Your task to perform on an android device: toggle wifi Image 0: 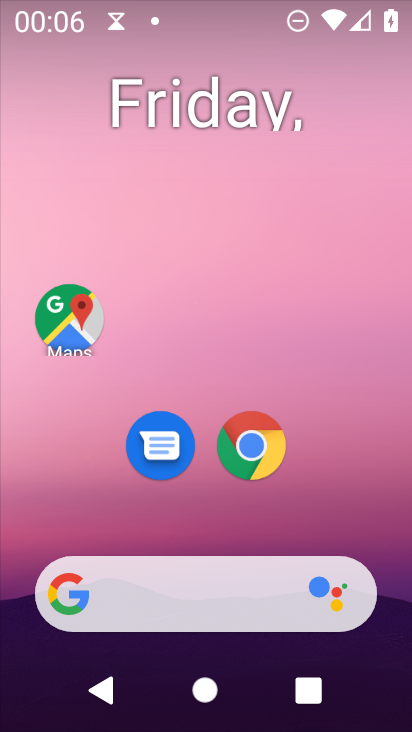
Step 0: click (208, 3)
Your task to perform on an android device: toggle wifi Image 1: 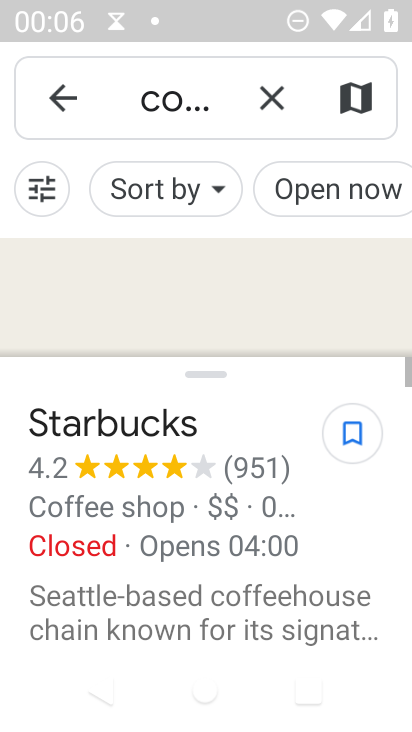
Step 1: press home button
Your task to perform on an android device: toggle wifi Image 2: 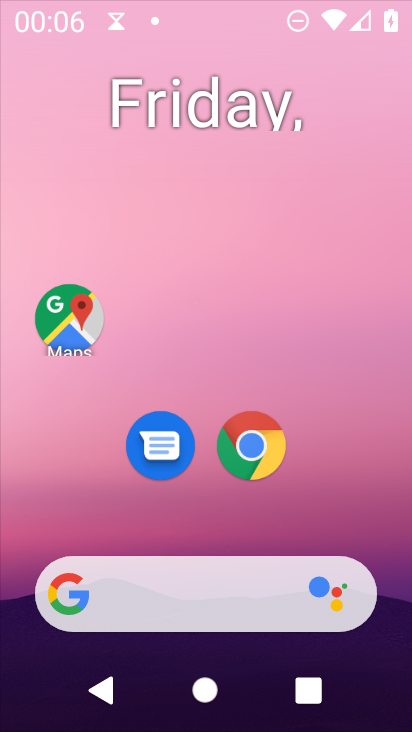
Step 2: drag from (245, 728) to (242, 81)
Your task to perform on an android device: toggle wifi Image 3: 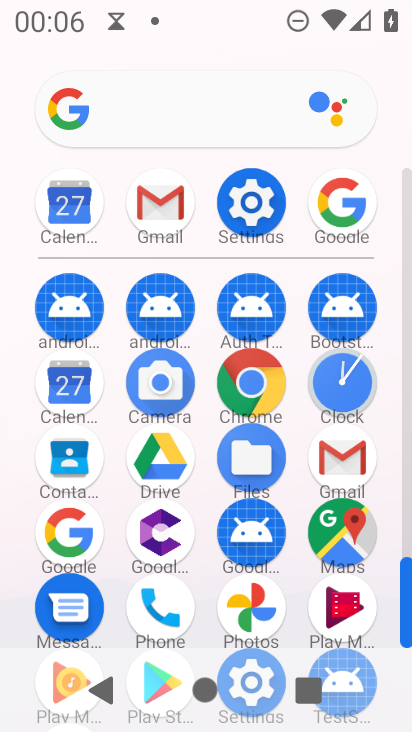
Step 3: click (249, 207)
Your task to perform on an android device: toggle wifi Image 4: 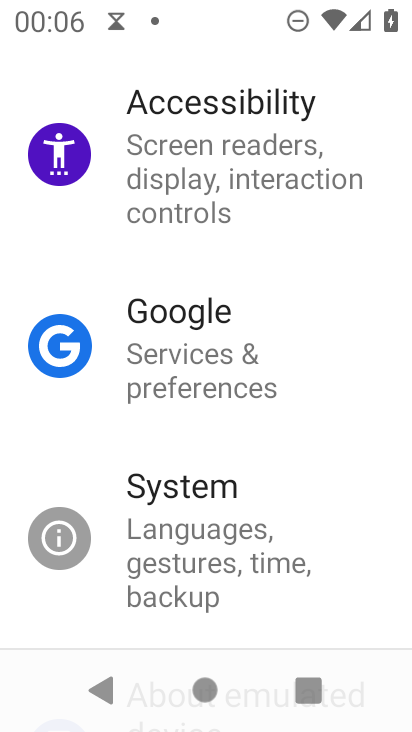
Step 4: drag from (343, 77) to (334, 510)
Your task to perform on an android device: toggle wifi Image 5: 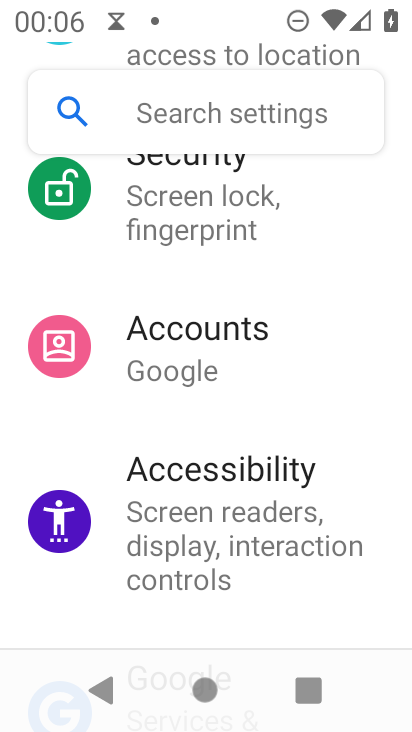
Step 5: drag from (315, 163) to (309, 604)
Your task to perform on an android device: toggle wifi Image 6: 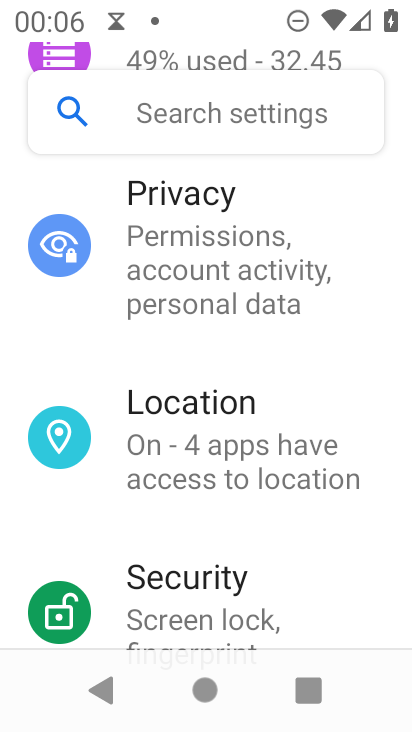
Step 6: drag from (301, 182) to (284, 632)
Your task to perform on an android device: toggle wifi Image 7: 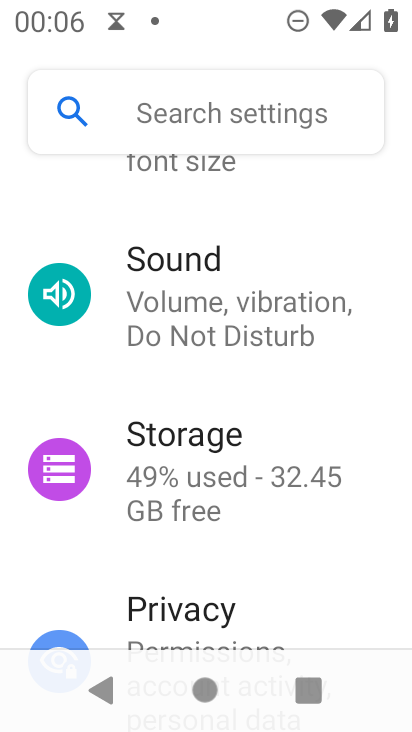
Step 7: drag from (296, 207) to (296, 537)
Your task to perform on an android device: toggle wifi Image 8: 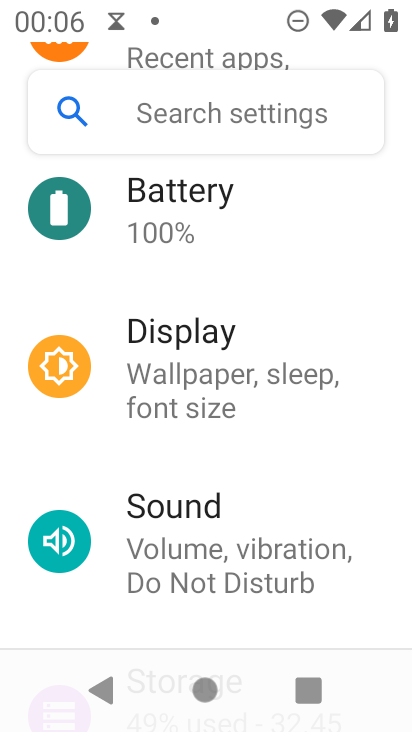
Step 8: drag from (280, 177) to (278, 525)
Your task to perform on an android device: toggle wifi Image 9: 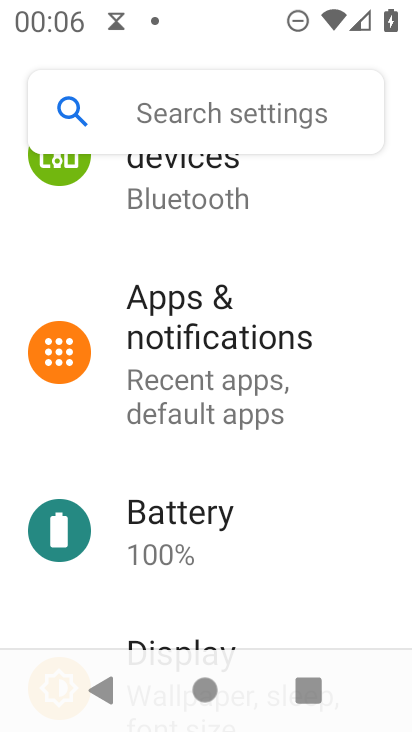
Step 9: drag from (297, 189) to (294, 613)
Your task to perform on an android device: toggle wifi Image 10: 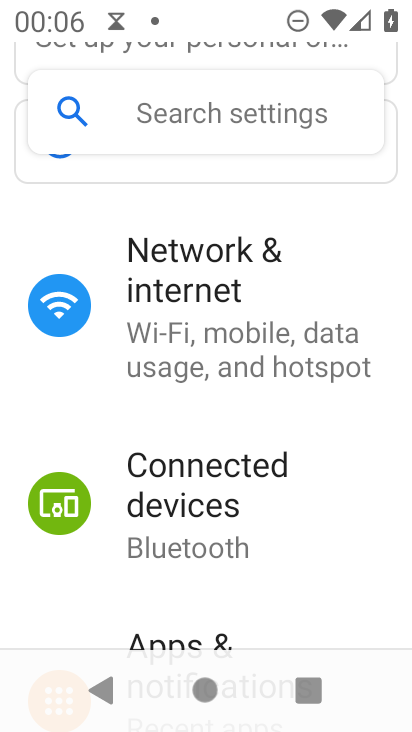
Step 10: click (170, 317)
Your task to perform on an android device: toggle wifi Image 11: 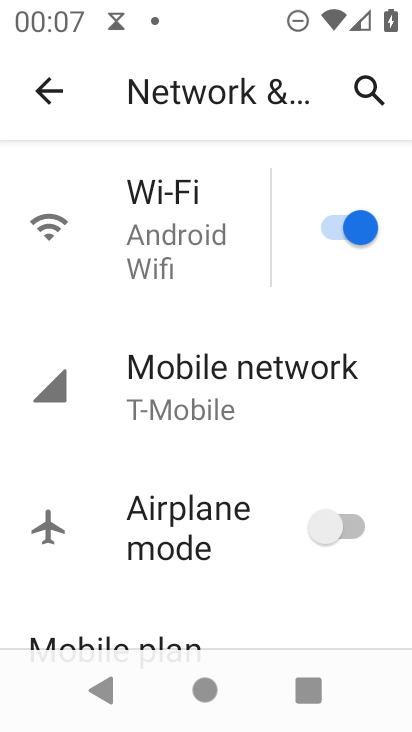
Step 11: click (333, 231)
Your task to perform on an android device: toggle wifi Image 12: 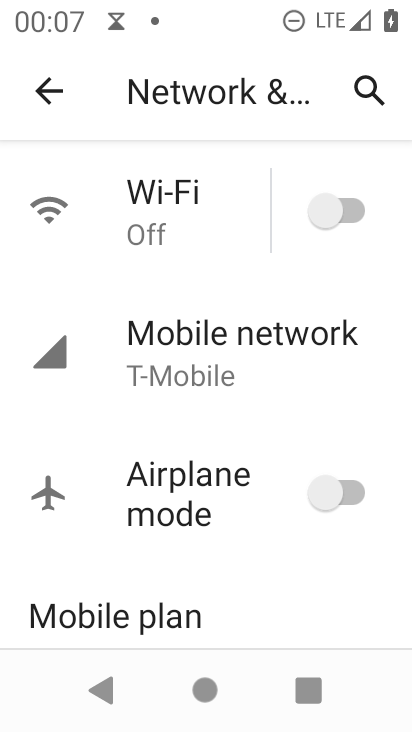
Step 12: task complete